Your task to perform on an android device: Open wifi settings Image 0: 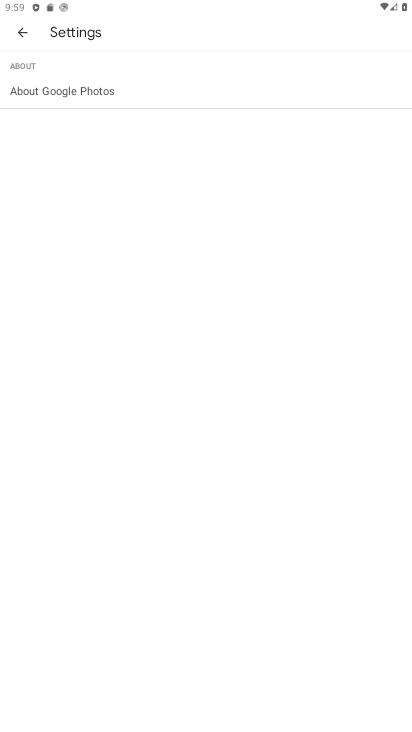
Step 0: press home button
Your task to perform on an android device: Open wifi settings Image 1: 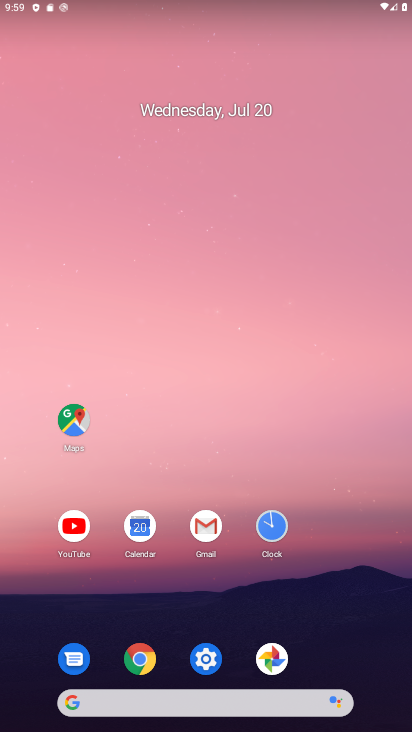
Step 1: click (206, 662)
Your task to perform on an android device: Open wifi settings Image 2: 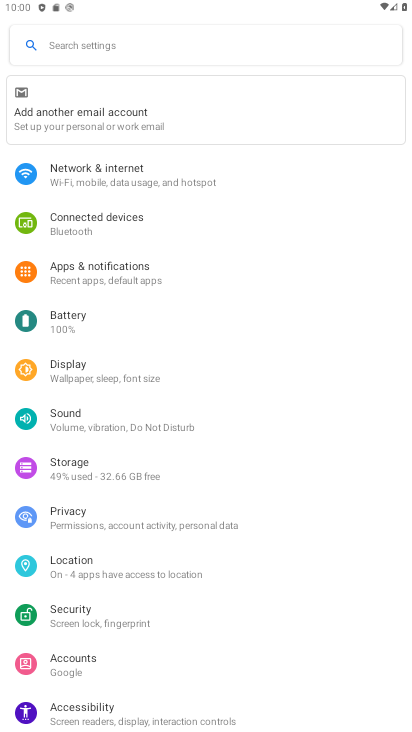
Step 2: click (100, 169)
Your task to perform on an android device: Open wifi settings Image 3: 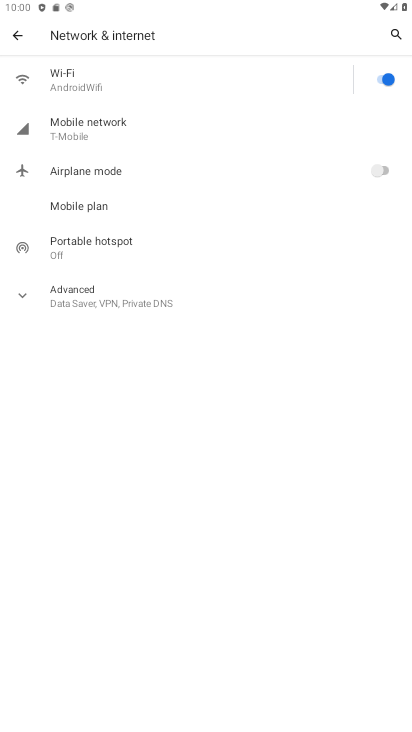
Step 3: click (60, 58)
Your task to perform on an android device: Open wifi settings Image 4: 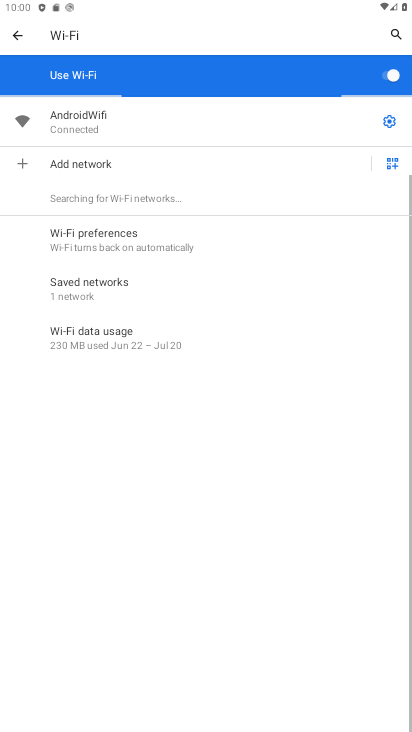
Step 4: task complete